Your task to perform on an android device: See recent photos Image 0: 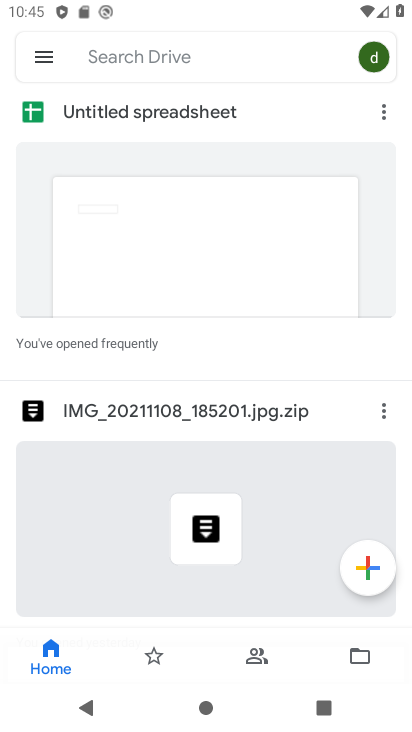
Step 0: press home button
Your task to perform on an android device: See recent photos Image 1: 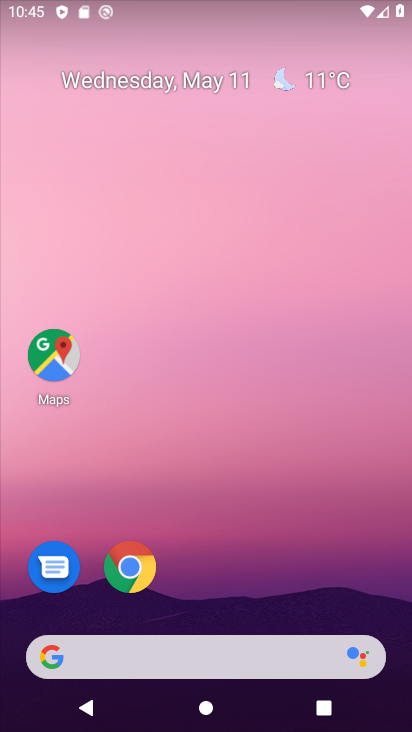
Step 1: drag from (295, 400) to (345, 23)
Your task to perform on an android device: See recent photos Image 2: 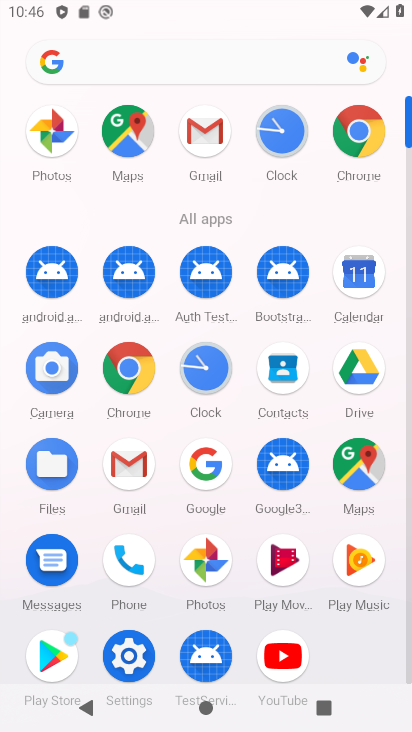
Step 2: click (42, 124)
Your task to perform on an android device: See recent photos Image 3: 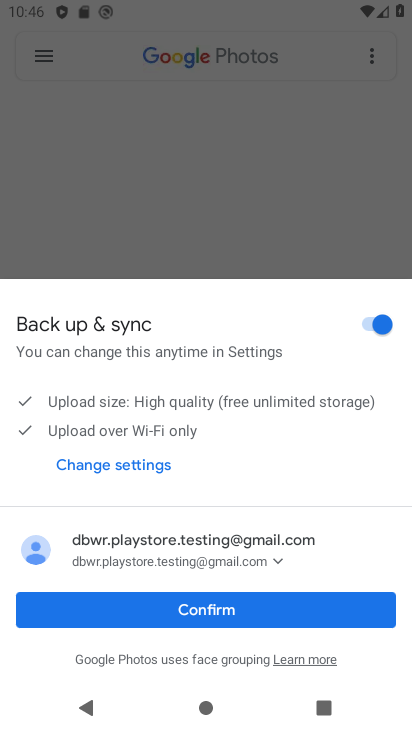
Step 3: click (214, 612)
Your task to perform on an android device: See recent photos Image 4: 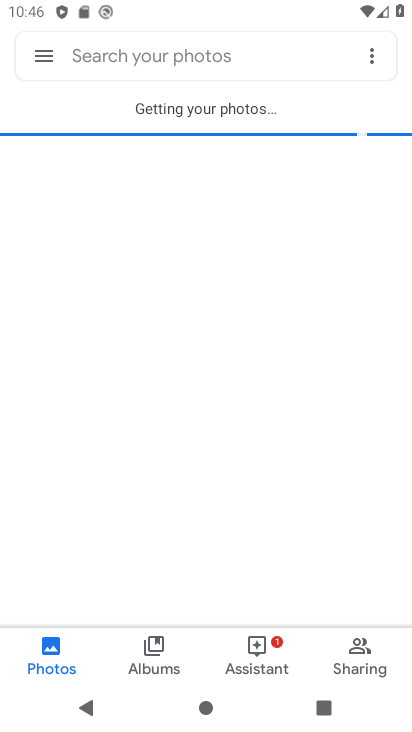
Step 4: click (143, 425)
Your task to perform on an android device: See recent photos Image 5: 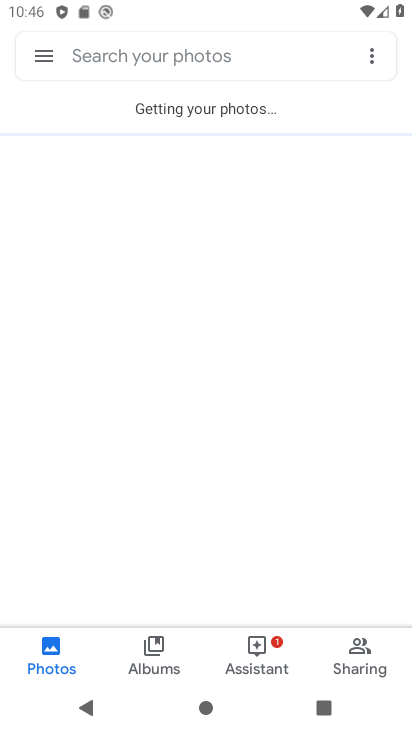
Step 5: click (154, 441)
Your task to perform on an android device: See recent photos Image 6: 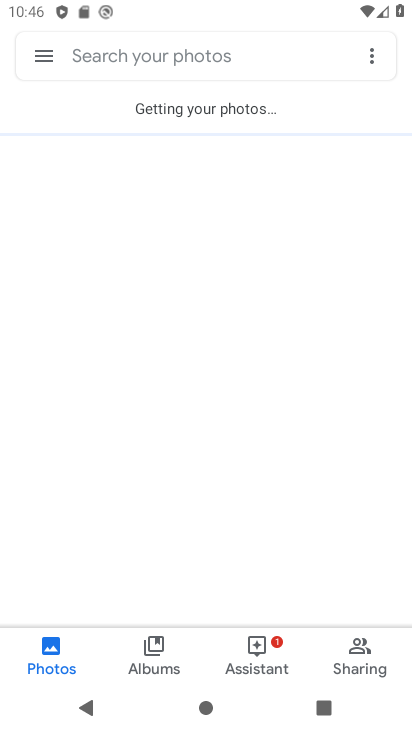
Step 6: click (50, 660)
Your task to perform on an android device: See recent photos Image 7: 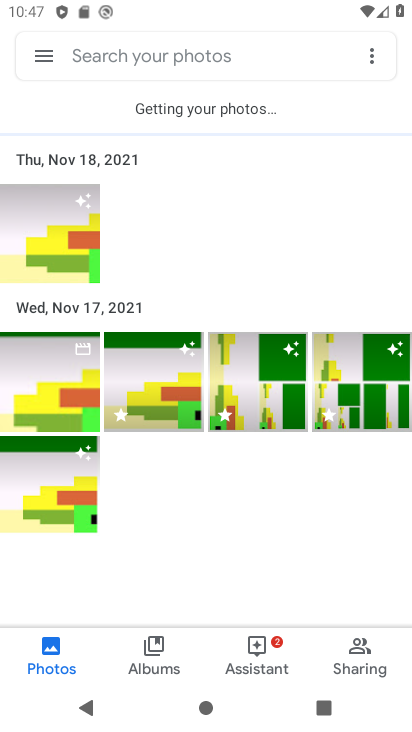
Step 7: click (18, 255)
Your task to perform on an android device: See recent photos Image 8: 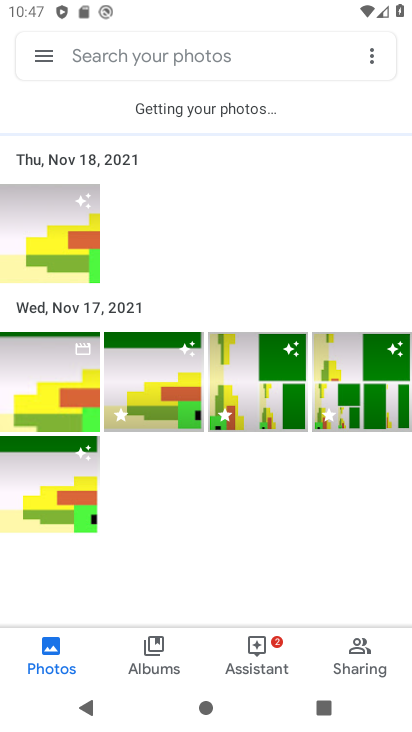
Step 8: click (47, 240)
Your task to perform on an android device: See recent photos Image 9: 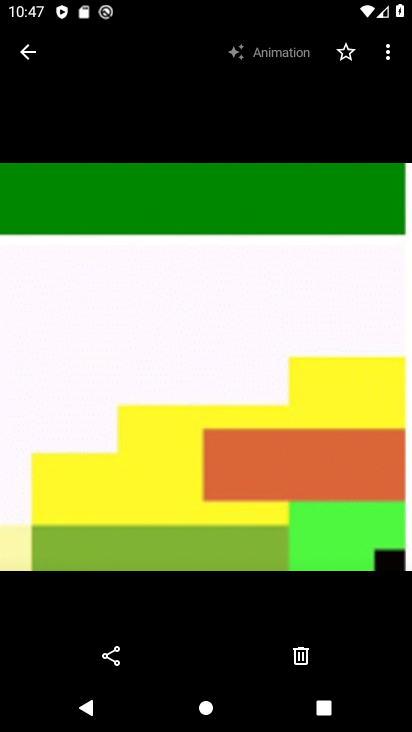
Step 9: task complete